Your task to perform on an android device: Open calendar and show me the fourth week of next month Image 0: 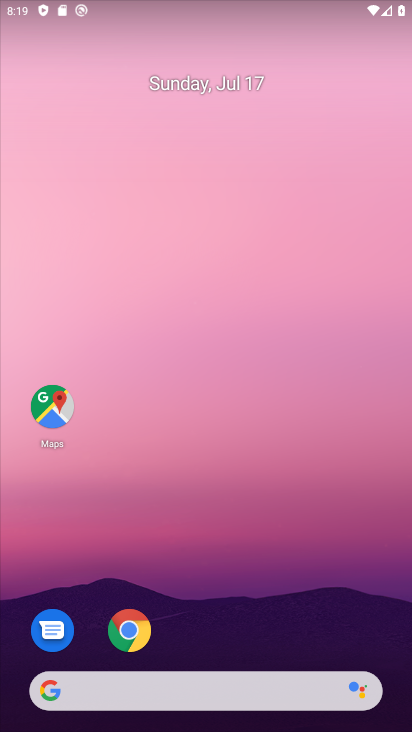
Step 0: drag from (216, 636) to (212, 266)
Your task to perform on an android device: Open calendar and show me the fourth week of next month Image 1: 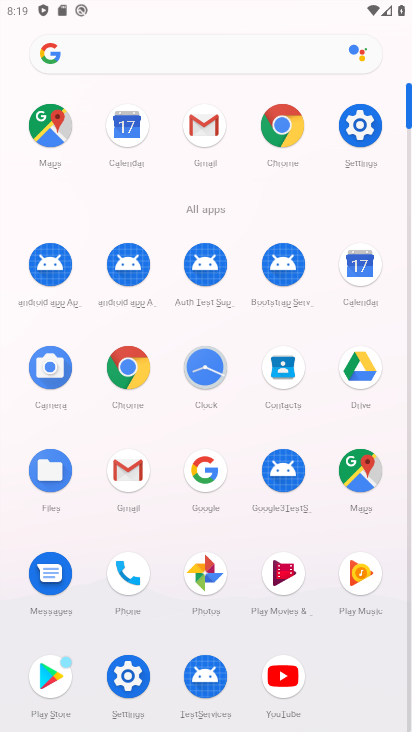
Step 1: click (361, 293)
Your task to perform on an android device: Open calendar and show me the fourth week of next month Image 2: 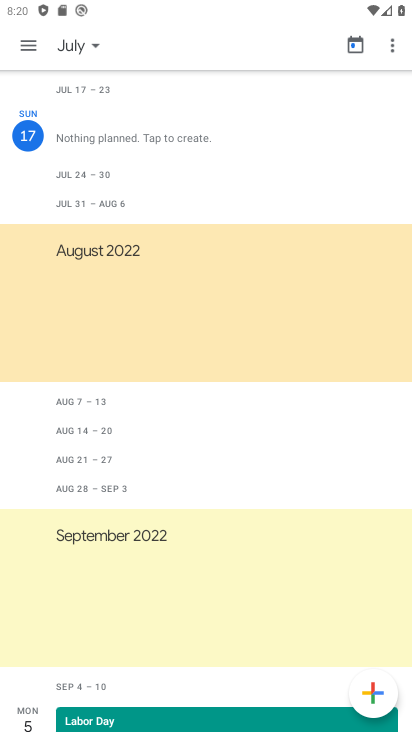
Step 2: click (105, 45)
Your task to perform on an android device: Open calendar and show me the fourth week of next month Image 3: 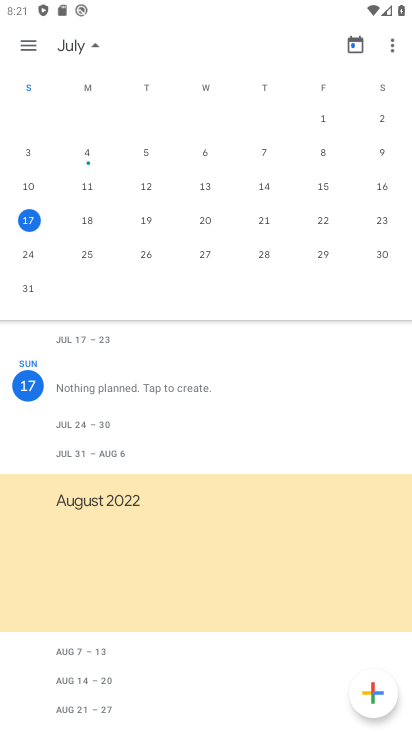
Step 3: drag from (334, 250) to (32, 236)
Your task to perform on an android device: Open calendar and show me the fourth week of next month Image 4: 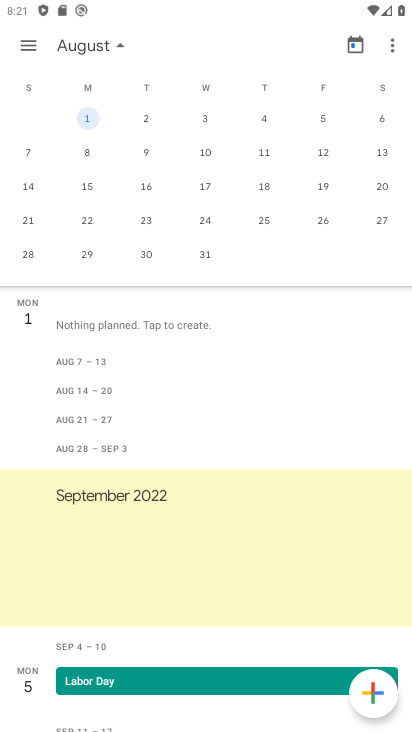
Step 4: click (200, 227)
Your task to perform on an android device: Open calendar and show me the fourth week of next month Image 5: 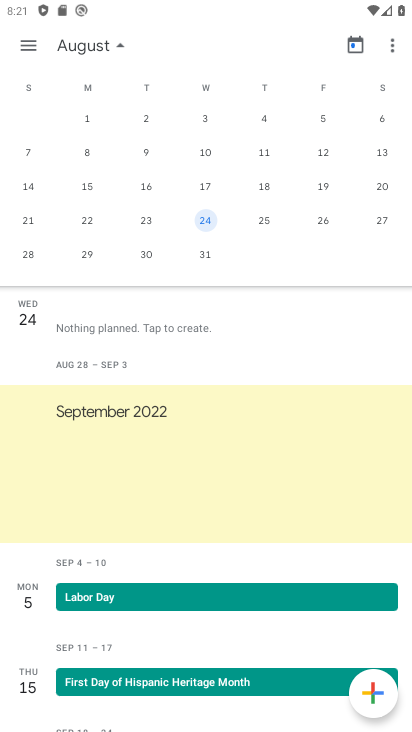
Step 5: task complete